Your task to perform on an android device: allow cookies in the chrome app Image 0: 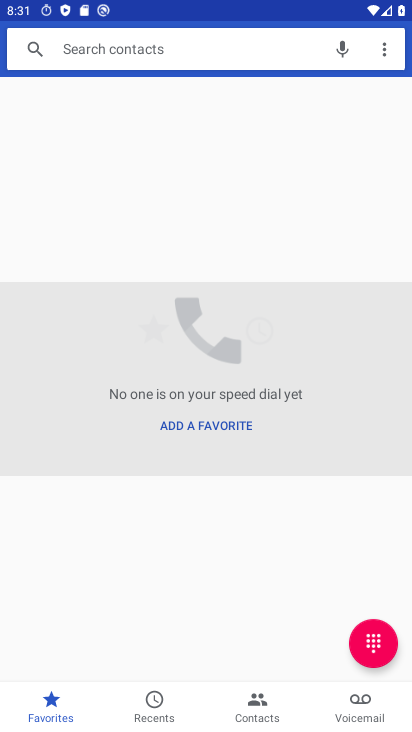
Step 0: press home button
Your task to perform on an android device: allow cookies in the chrome app Image 1: 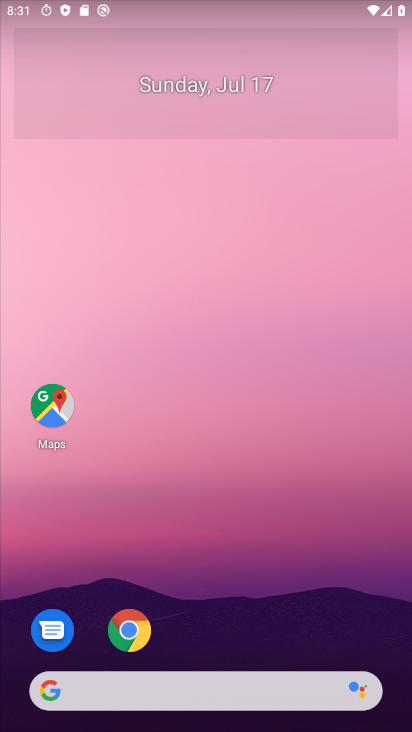
Step 1: click (143, 637)
Your task to perform on an android device: allow cookies in the chrome app Image 2: 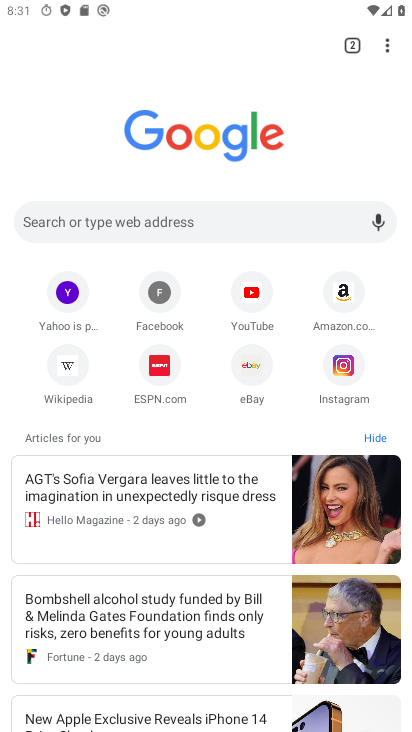
Step 2: click (390, 43)
Your task to perform on an android device: allow cookies in the chrome app Image 3: 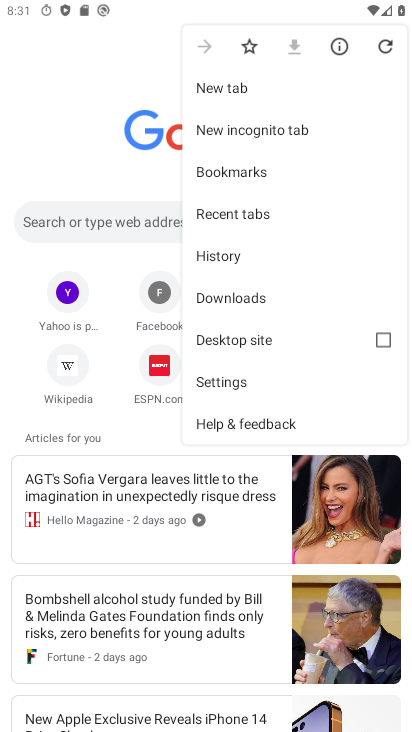
Step 3: click (238, 381)
Your task to perform on an android device: allow cookies in the chrome app Image 4: 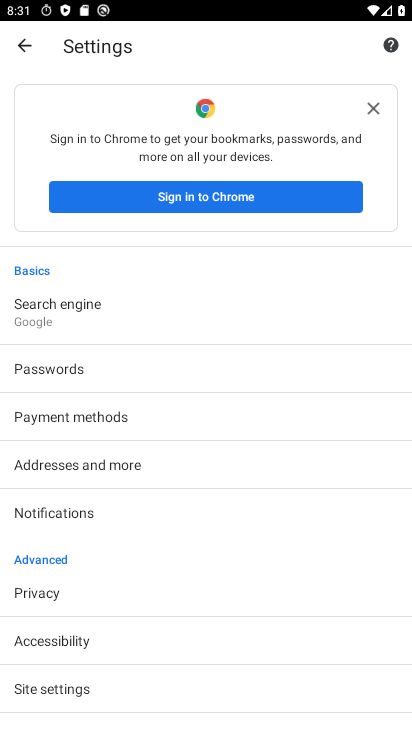
Step 4: click (45, 689)
Your task to perform on an android device: allow cookies in the chrome app Image 5: 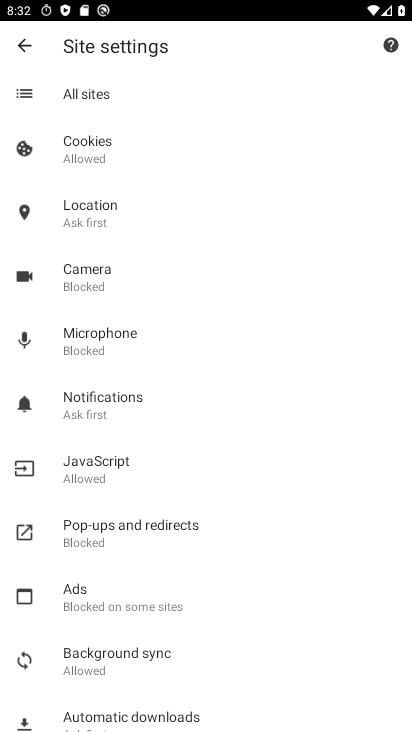
Step 5: click (86, 153)
Your task to perform on an android device: allow cookies in the chrome app Image 6: 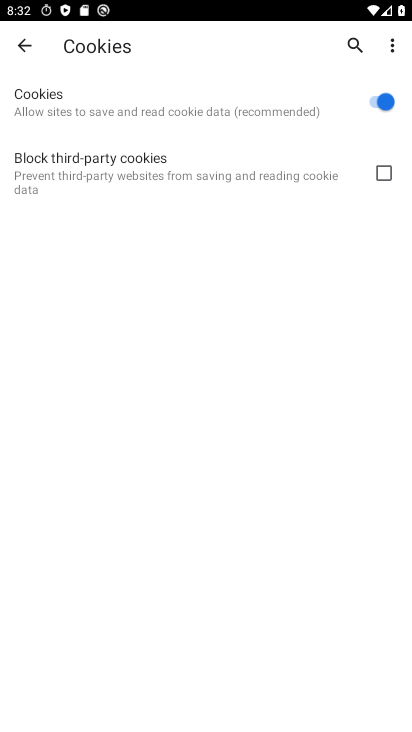
Step 6: task complete